Your task to perform on an android device: toggle translation in the chrome app Image 0: 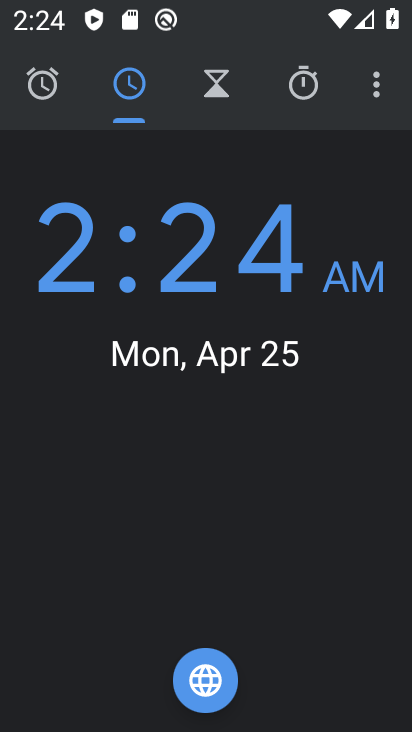
Step 0: press back button
Your task to perform on an android device: toggle translation in the chrome app Image 1: 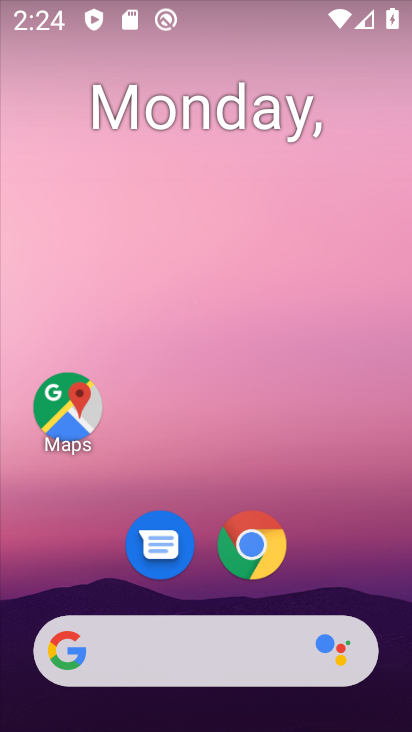
Step 1: click (257, 543)
Your task to perform on an android device: toggle translation in the chrome app Image 2: 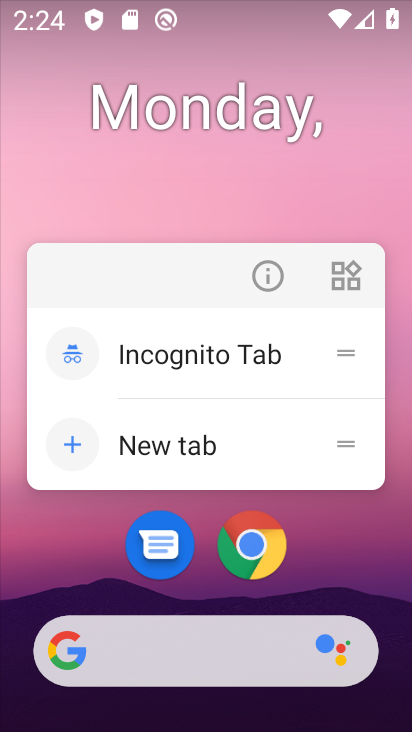
Step 2: click (251, 544)
Your task to perform on an android device: toggle translation in the chrome app Image 3: 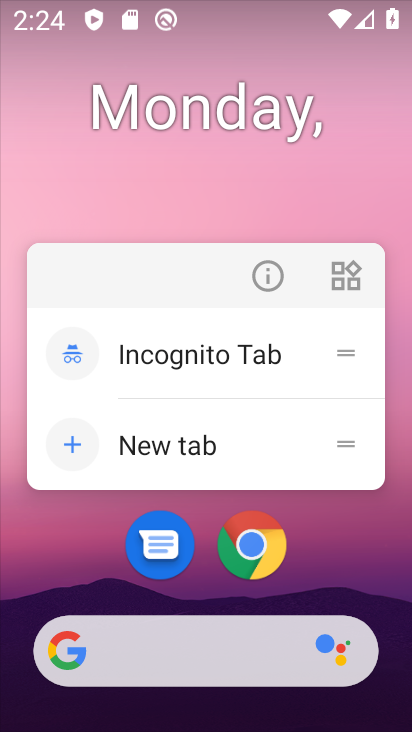
Step 3: click (263, 548)
Your task to perform on an android device: toggle translation in the chrome app Image 4: 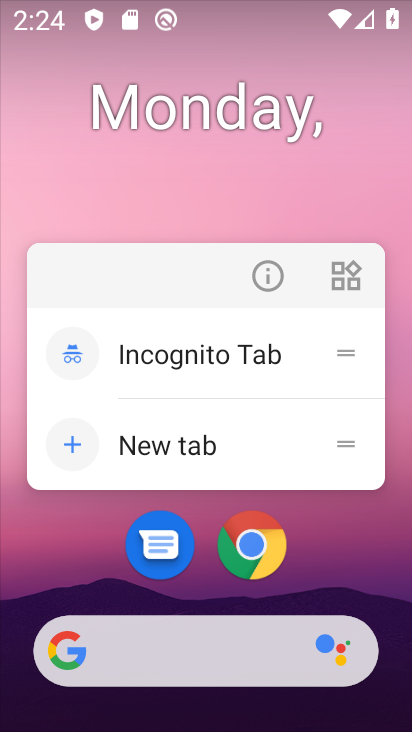
Step 4: click (256, 548)
Your task to perform on an android device: toggle translation in the chrome app Image 5: 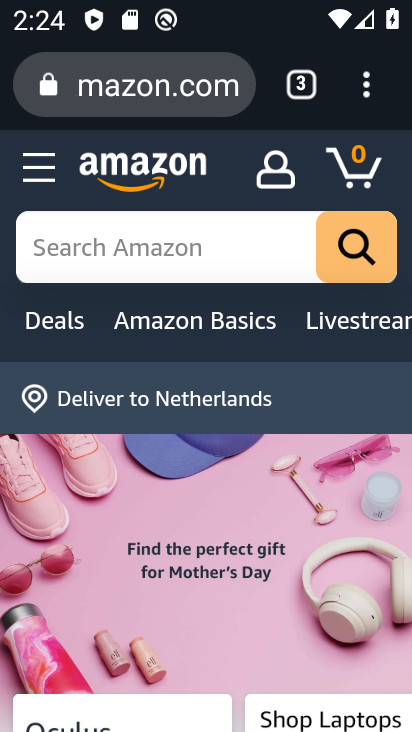
Step 5: drag from (367, 87) to (142, 597)
Your task to perform on an android device: toggle translation in the chrome app Image 6: 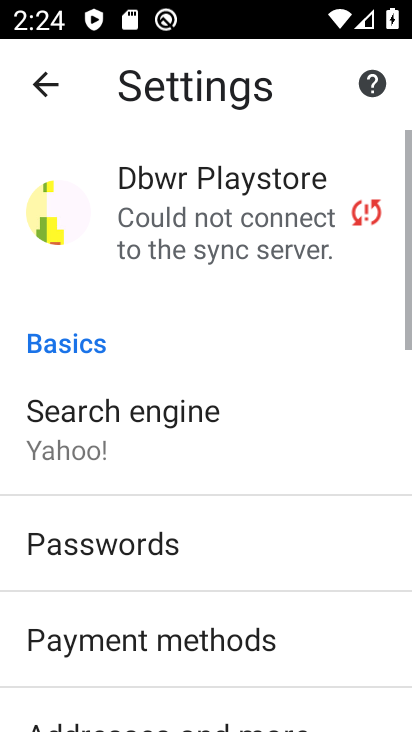
Step 6: drag from (154, 595) to (241, 49)
Your task to perform on an android device: toggle translation in the chrome app Image 7: 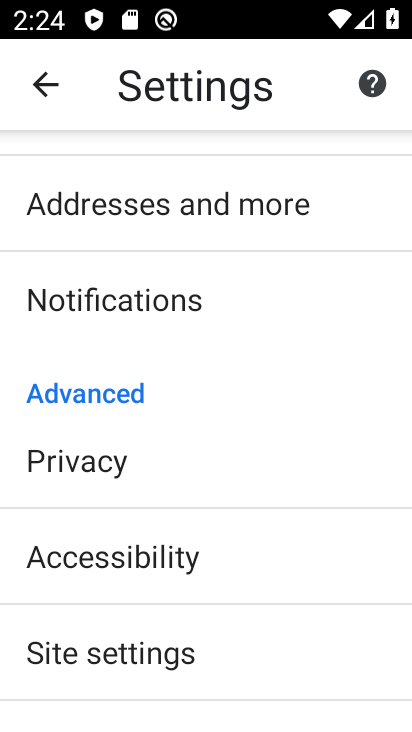
Step 7: drag from (160, 672) to (273, 203)
Your task to perform on an android device: toggle translation in the chrome app Image 8: 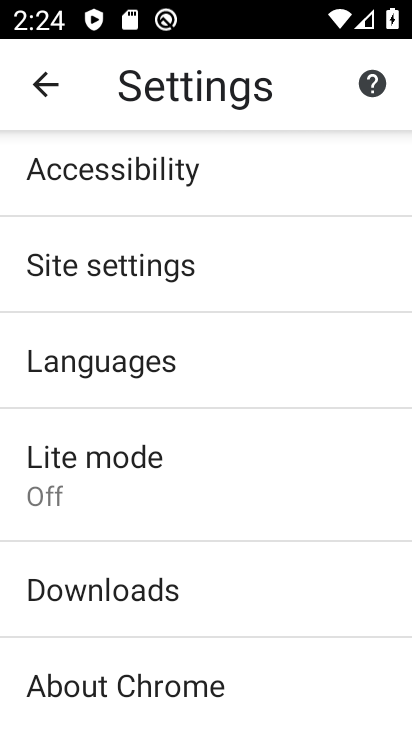
Step 8: click (117, 368)
Your task to perform on an android device: toggle translation in the chrome app Image 9: 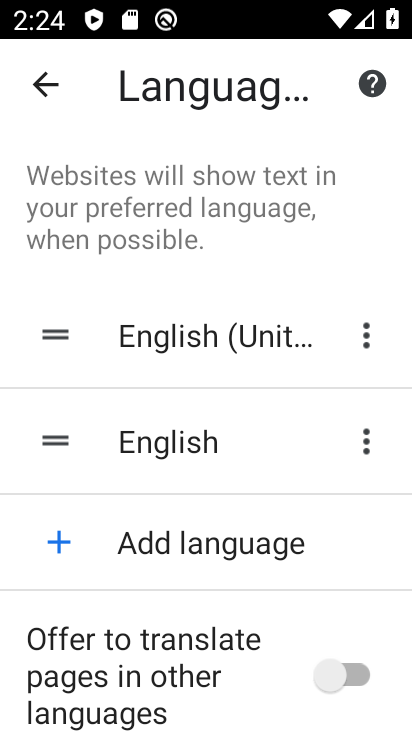
Step 9: drag from (141, 669) to (181, 353)
Your task to perform on an android device: toggle translation in the chrome app Image 10: 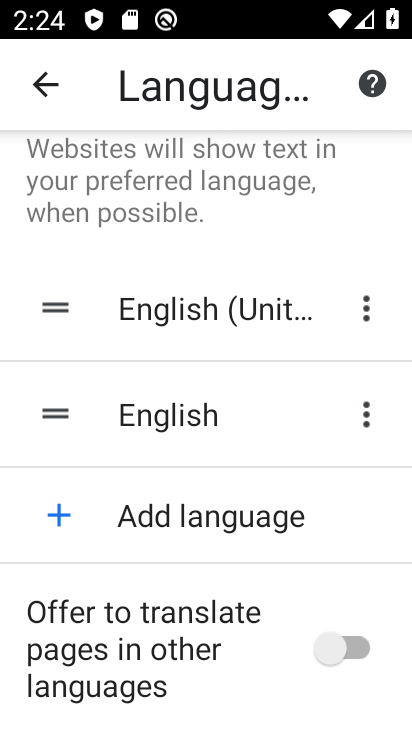
Step 10: click (332, 647)
Your task to perform on an android device: toggle translation in the chrome app Image 11: 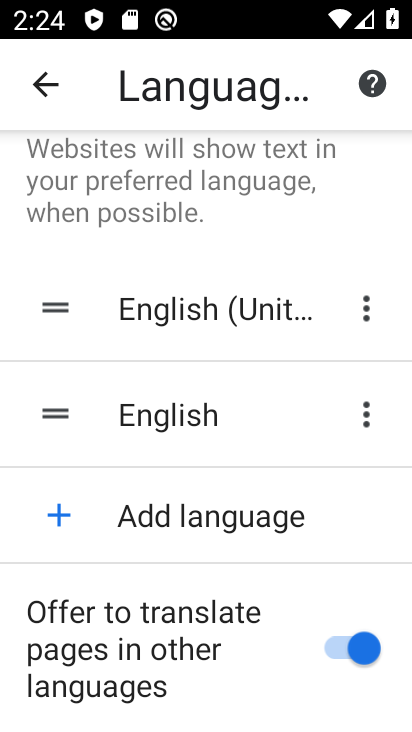
Step 11: task complete